Your task to perform on an android device: snooze an email in the gmail app Image 0: 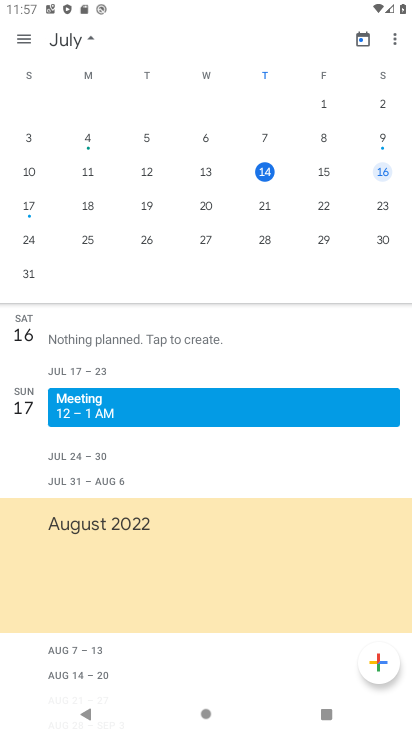
Step 0: press home button
Your task to perform on an android device: snooze an email in the gmail app Image 1: 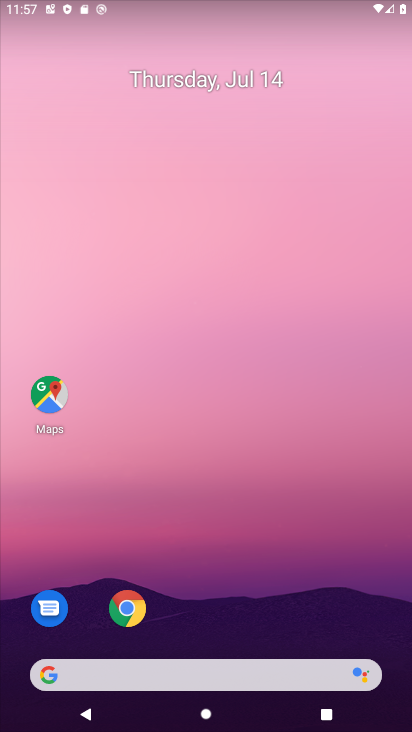
Step 1: drag from (289, 668) to (335, 19)
Your task to perform on an android device: snooze an email in the gmail app Image 2: 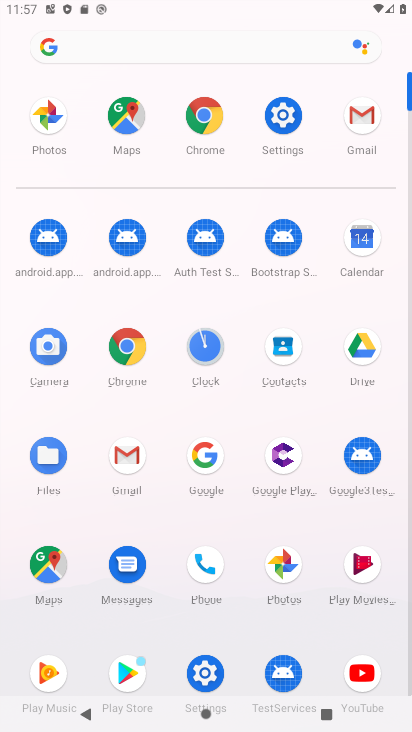
Step 2: click (133, 460)
Your task to perform on an android device: snooze an email in the gmail app Image 3: 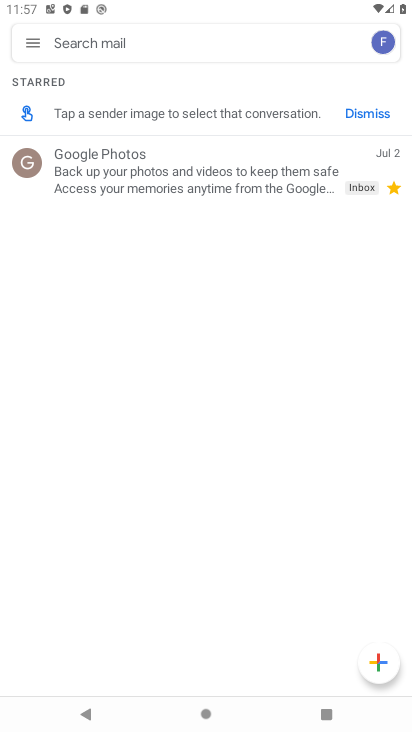
Step 3: click (28, 33)
Your task to perform on an android device: snooze an email in the gmail app Image 4: 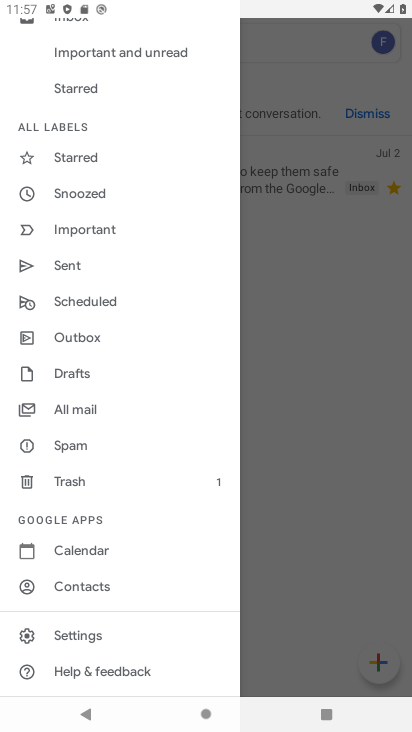
Step 4: click (94, 186)
Your task to perform on an android device: snooze an email in the gmail app Image 5: 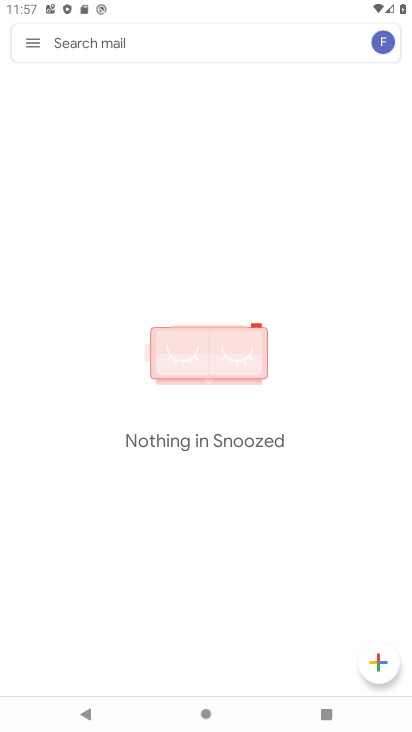
Step 5: task complete